Your task to perform on an android device: Go to wifi settings Image 0: 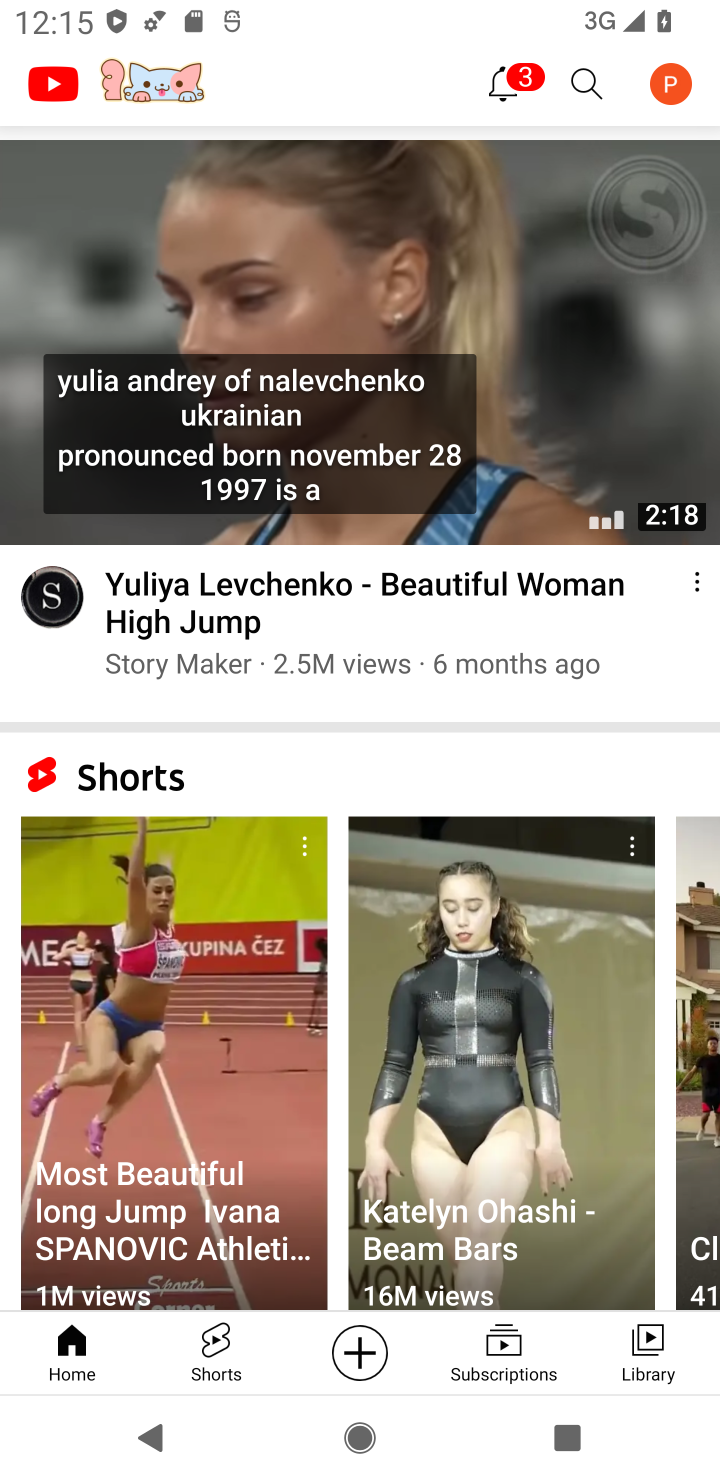
Step 0: press home button
Your task to perform on an android device: Go to wifi settings Image 1: 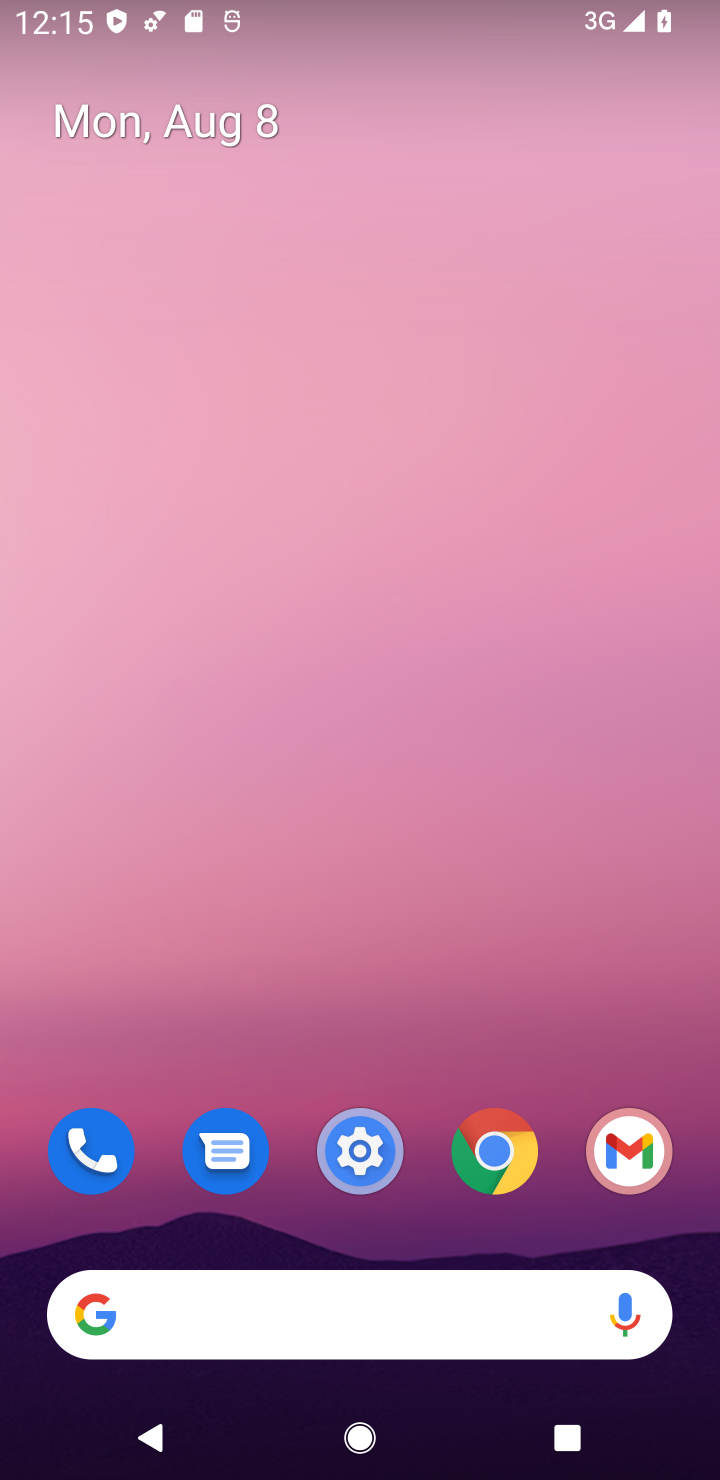
Step 1: drag from (228, 1087) to (251, 439)
Your task to perform on an android device: Go to wifi settings Image 2: 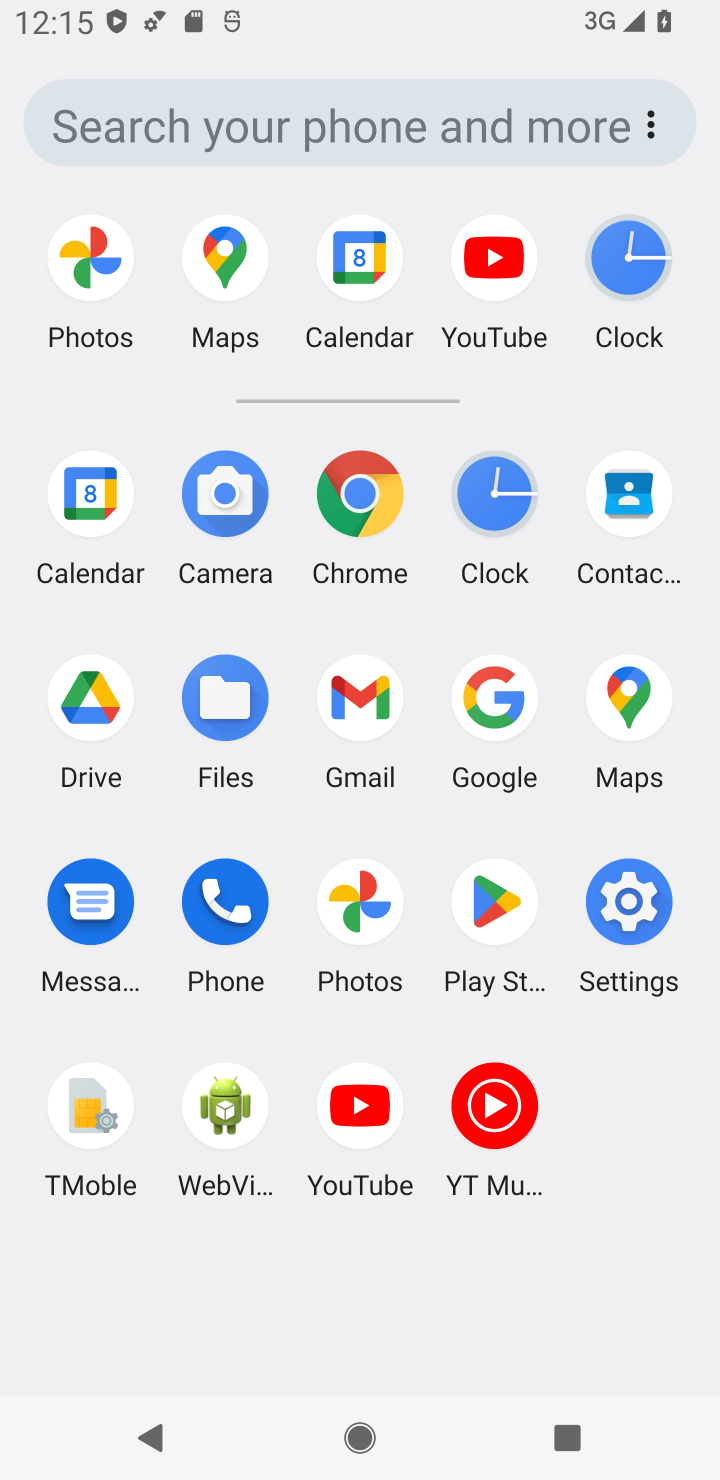
Step 2: click (593, 889)
Your task to perform on an android device: Go to wifi settings Image 3: 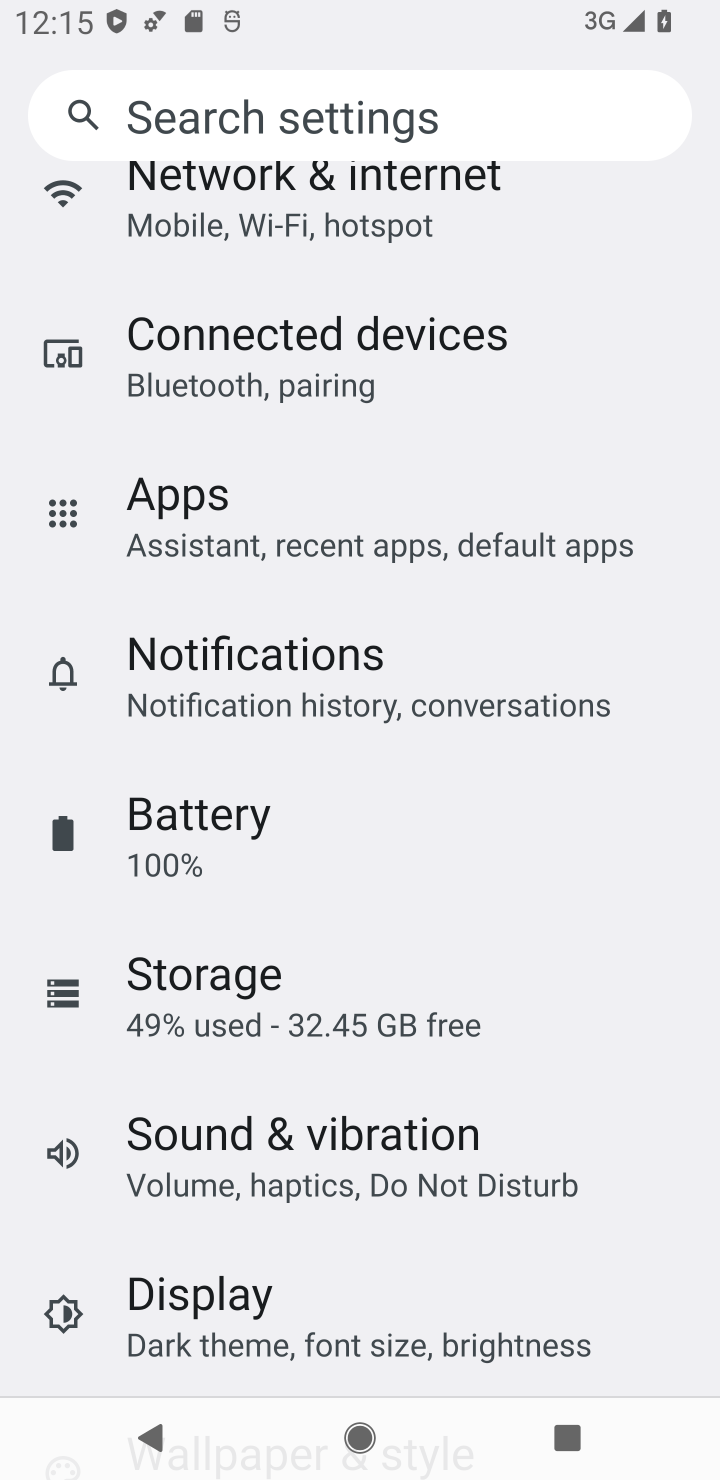
Step 3: click (204, 163)
Your task to perform on an android device: Go to wifi settings Image 4: 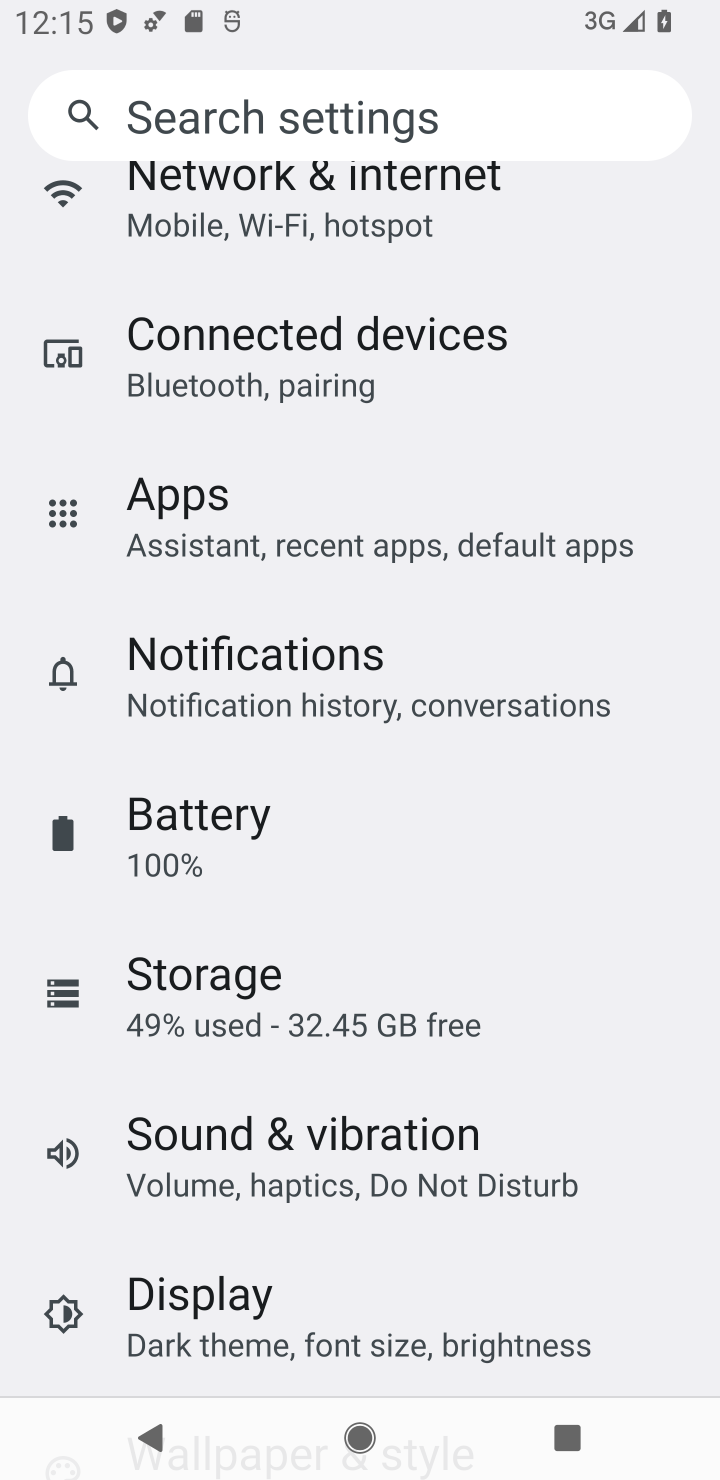
Step 4: drag from (223, 169) to (339, 732)
Your task to perform on an android device: Go to wifi settings Image 5: 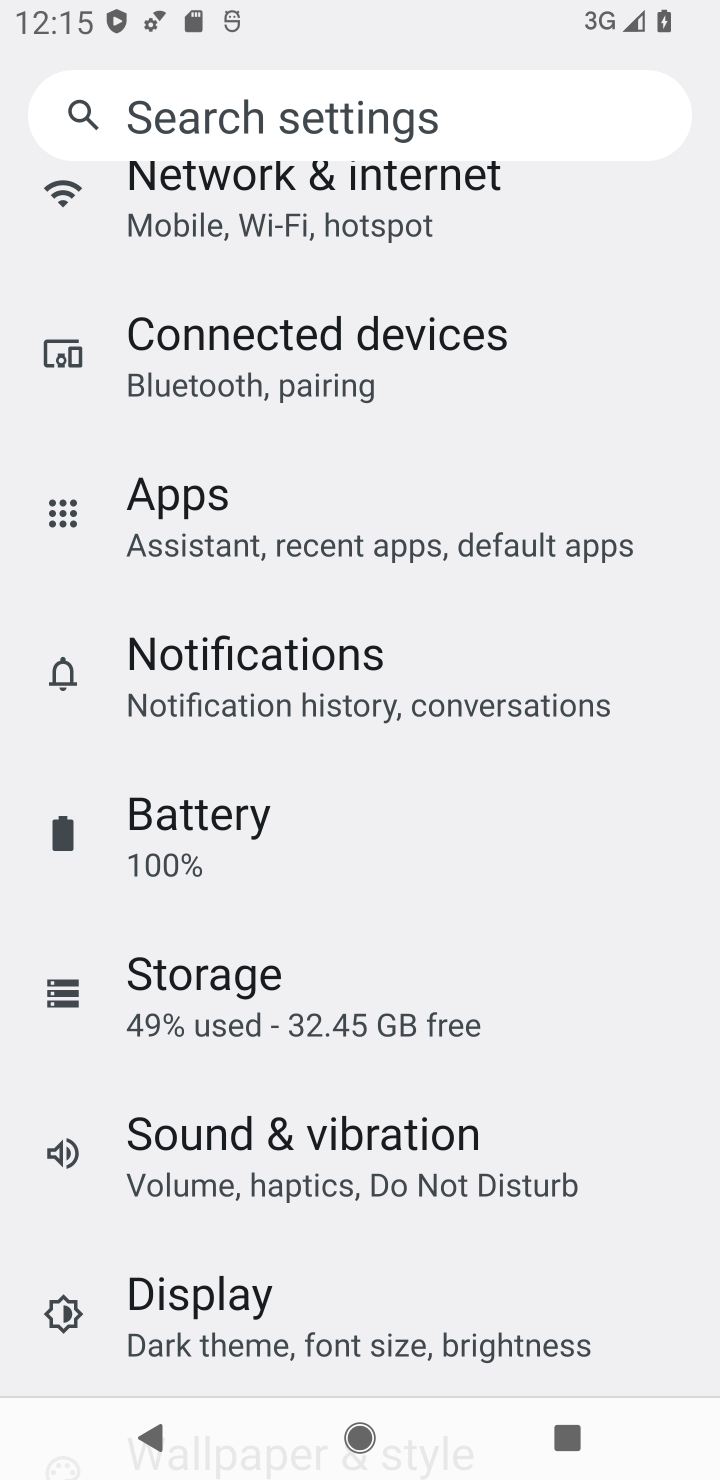
Step 5: drag from (419, 171) to (622, 1131)
Your task to perform on an android device: Go to wifi settings Image 6: 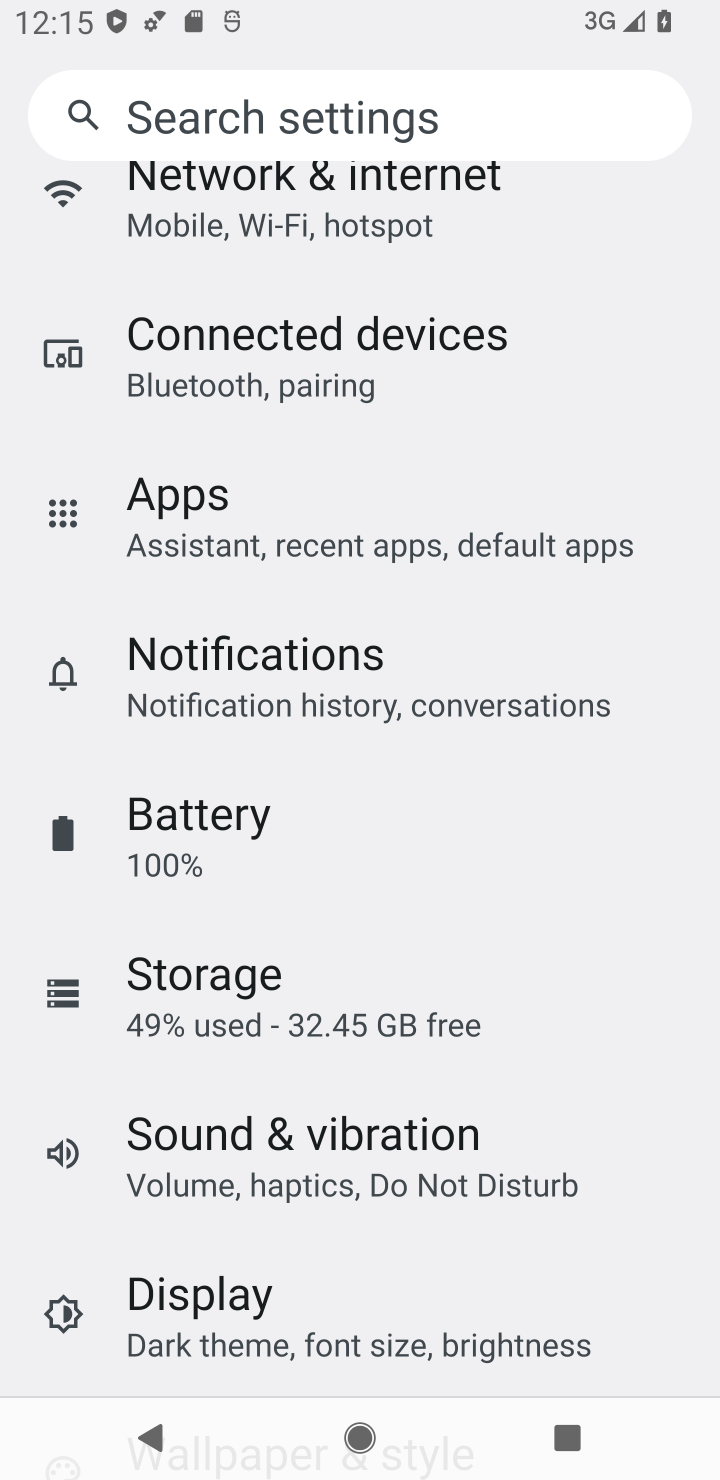
Step 6: click (247, 185)
Your task to perform on an android device: Go to wifi settings Image 7: 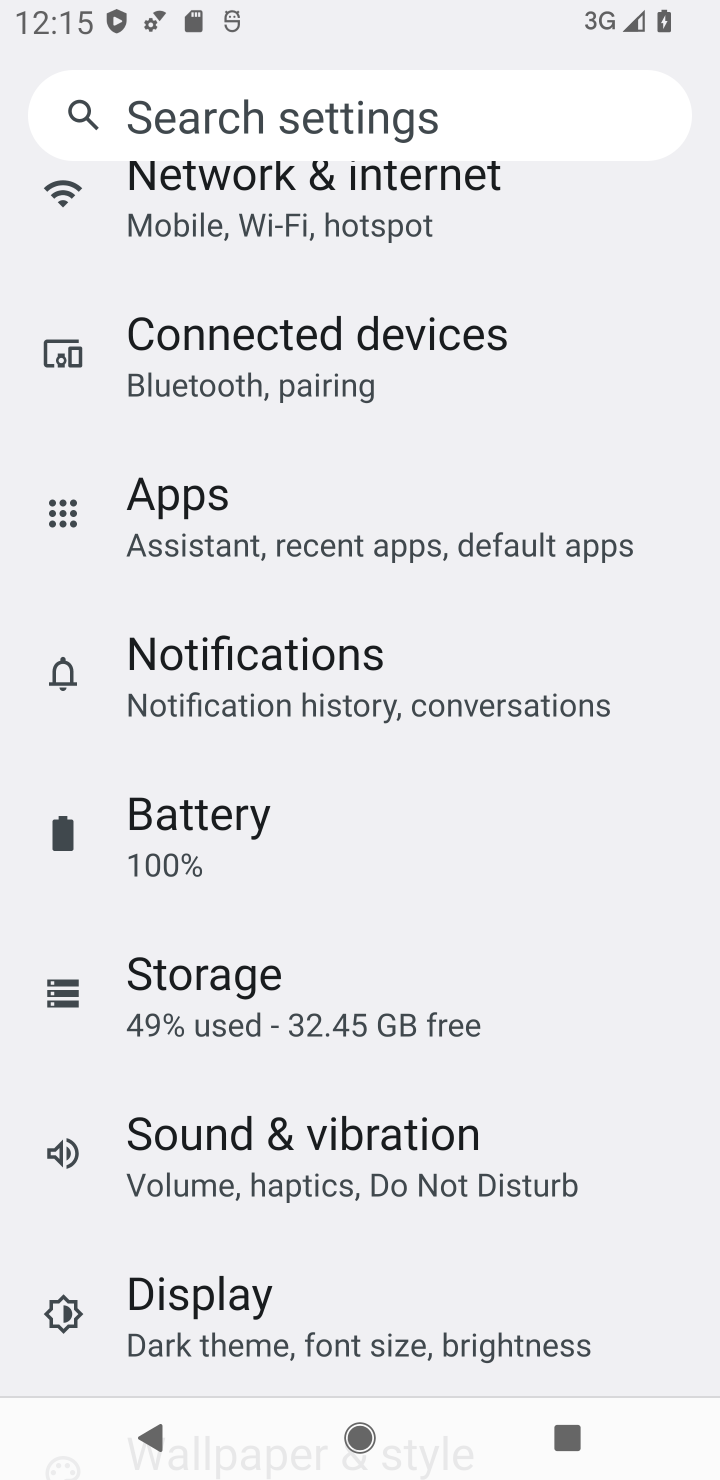
Step 7: click (233, 194)
Your task to perform on an android device: Go to wifi settings Image 8: 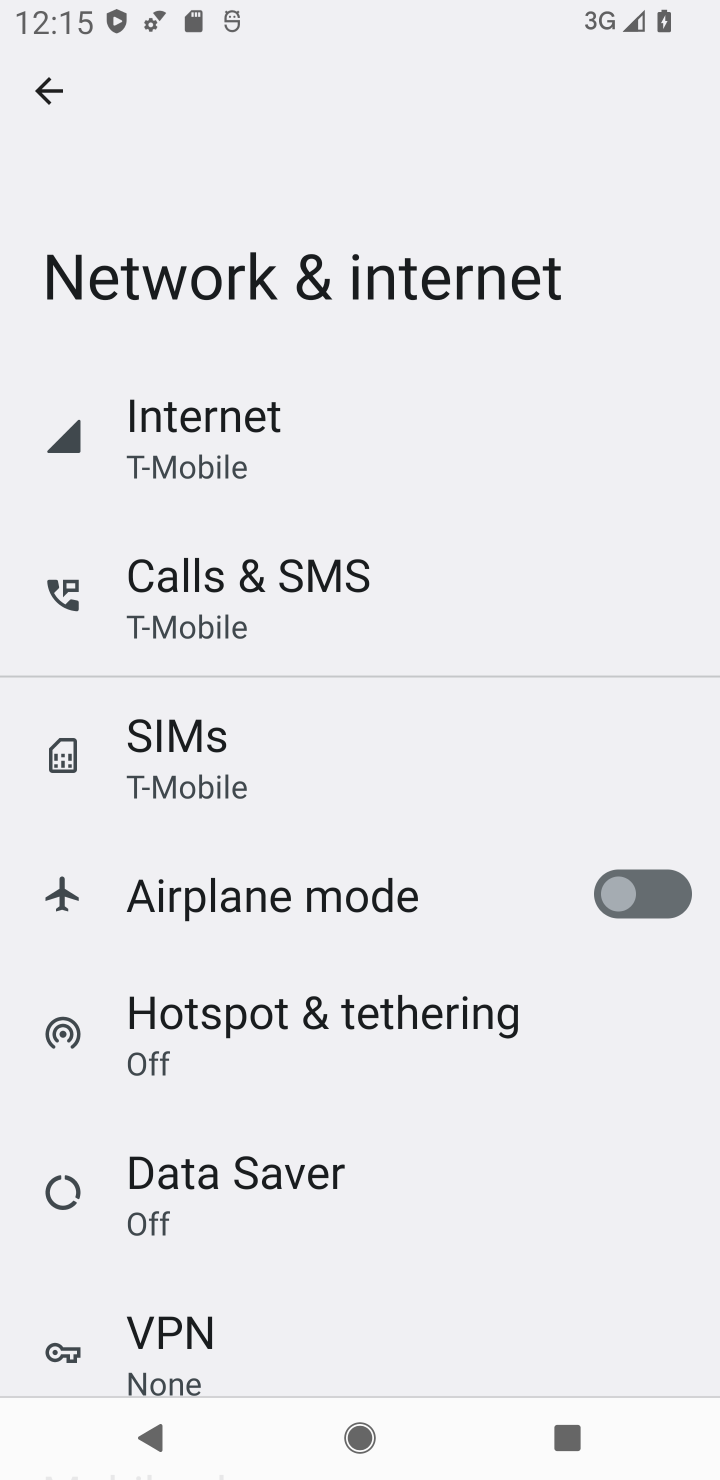
Step 8: click (184, 433)
Your task to perform on an android device: Go to wifi settings Image 9: 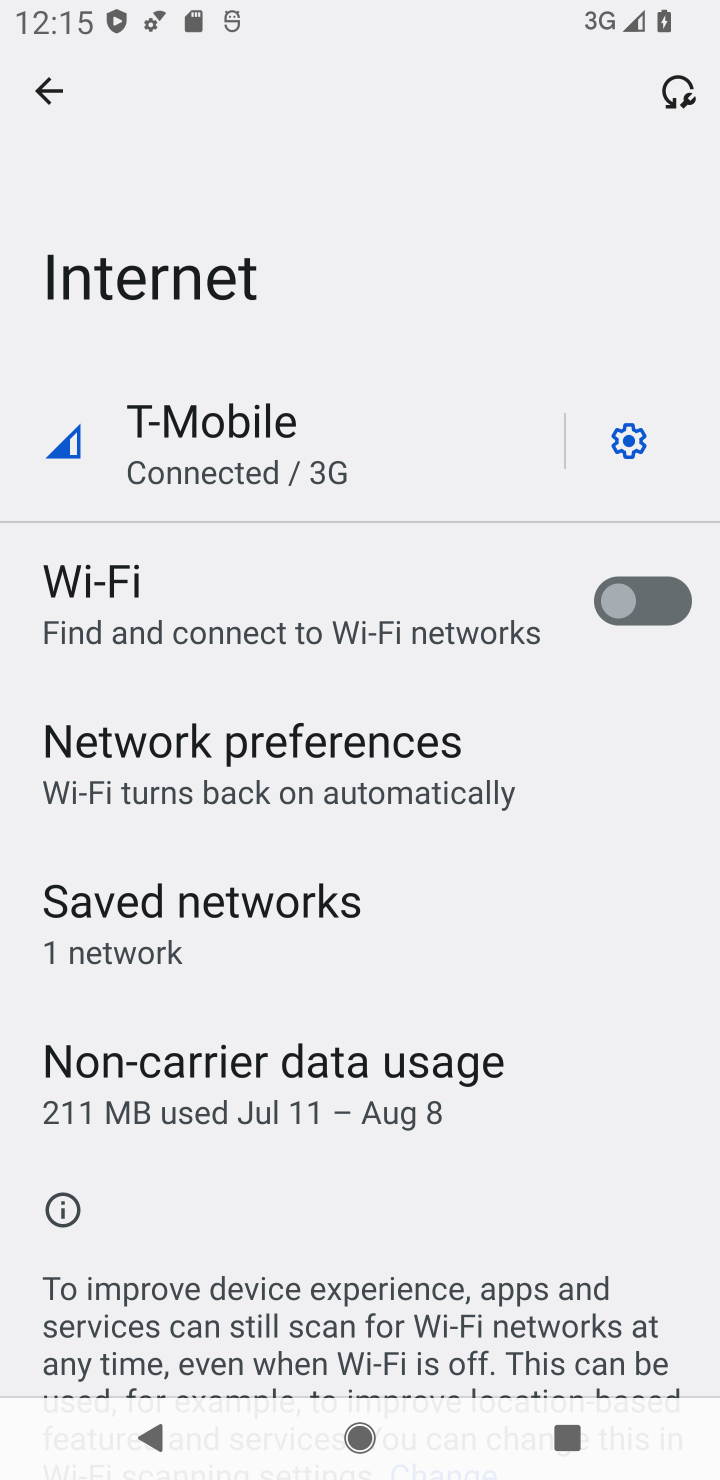
Step 9: click (678, 602)
Your task to perform on an android device: Go to wifi settings Image 10: 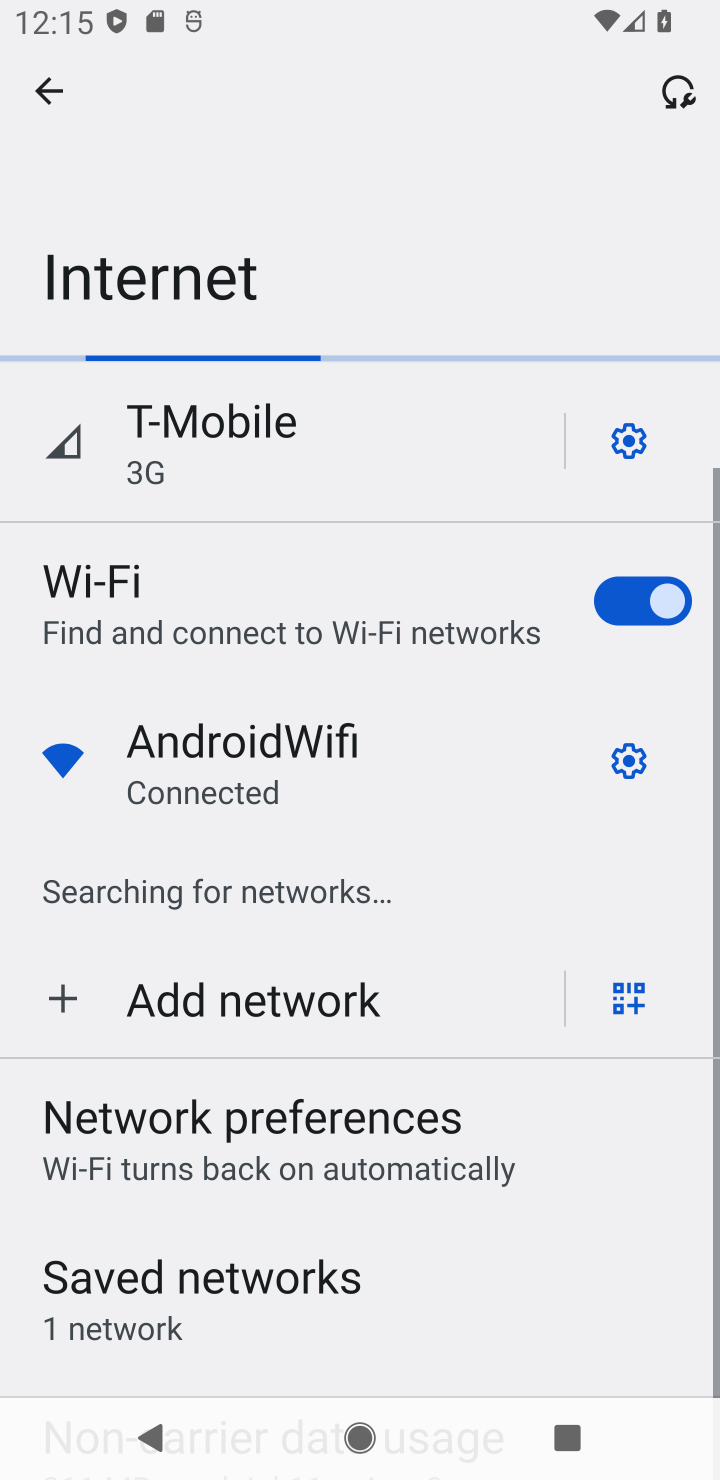
Step 10: click (629, 763)
Your task to perform on an android device: Go to wifi settings Image 11: 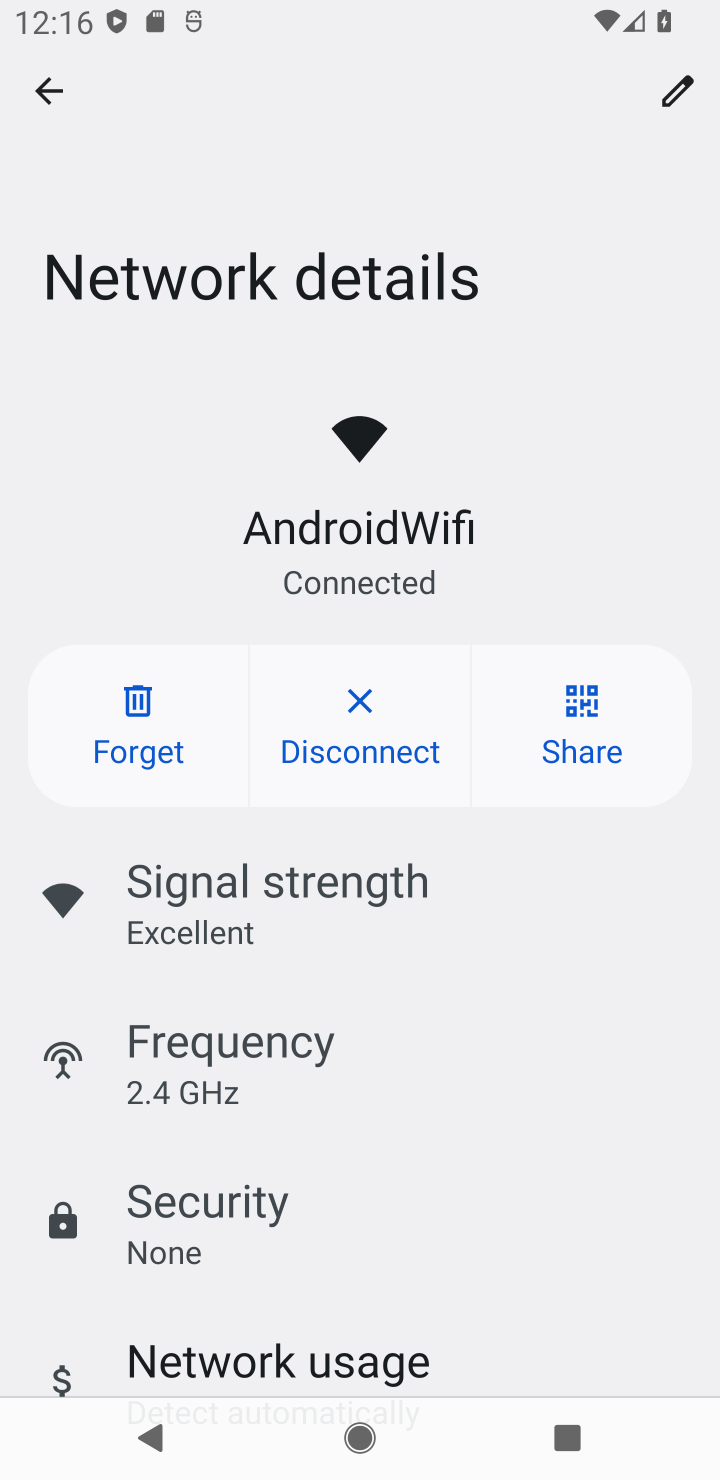
Step 11: task complete